Your task to perform on an android device: toggle notification dots Image 0: 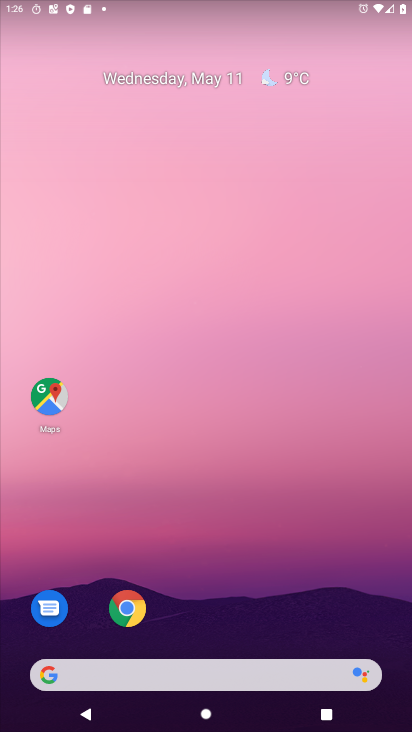
Step 0: drag from (298, 573) to (259, 70)
Your task to perform on an android device: toggle notification dots Image 1: 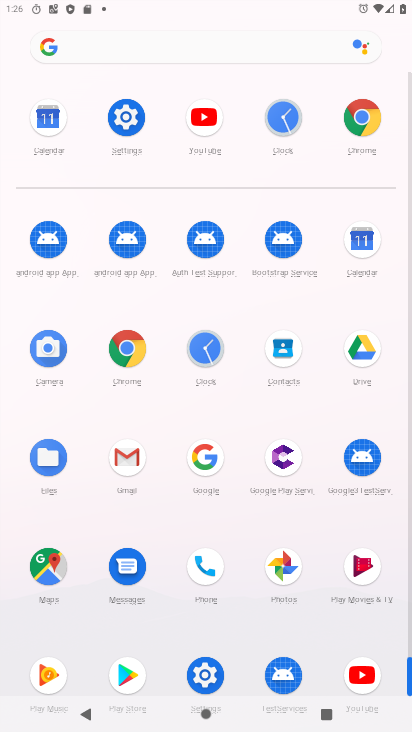
Step 1: click (138, 128)
Your task to perform on an android device: toggle notification dots Image 2: 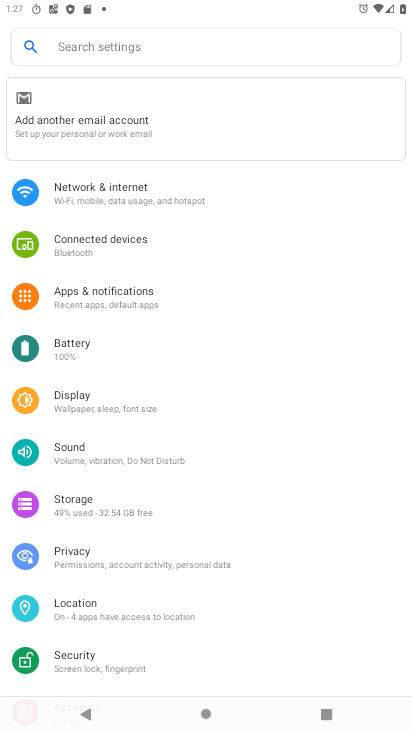
Step 2: click (119, 301)
Your task to perform on an android device: toggle notification dots Image 3: 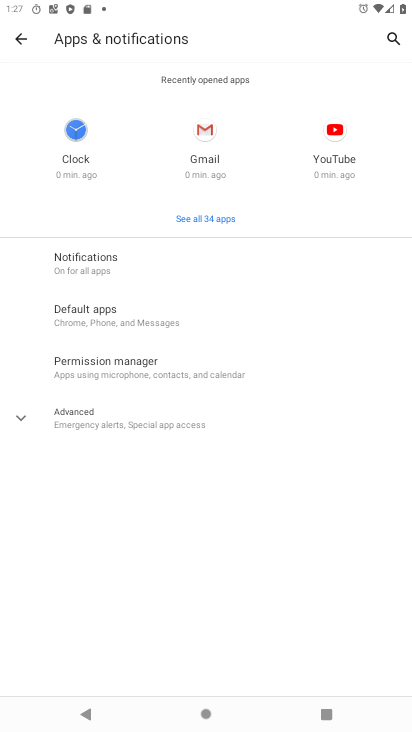
Step 3: click (146, 429)
Your task to perform on an android device: toggle notification dots Image 4: 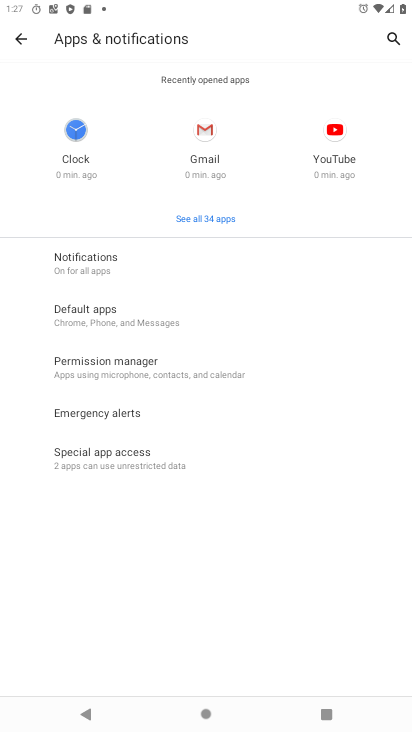
Step 4: click (121, 274)
Your task to perform on an android device: toggle notification dots Image 5: 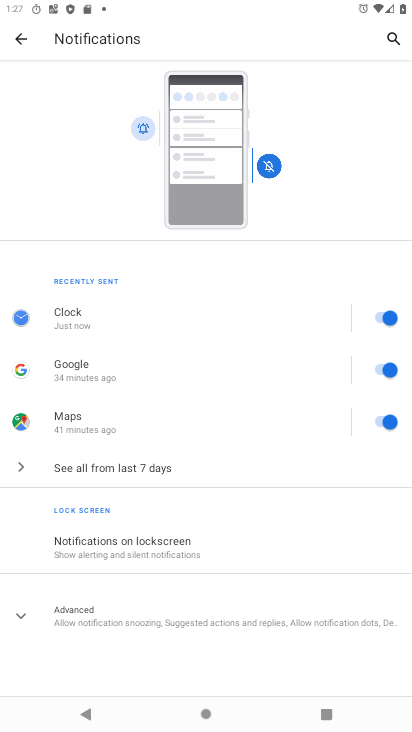
Step 5: drag from (177, 566) to (185, 450)
Your task to perform on an android device: toggle notification dots Image 6: 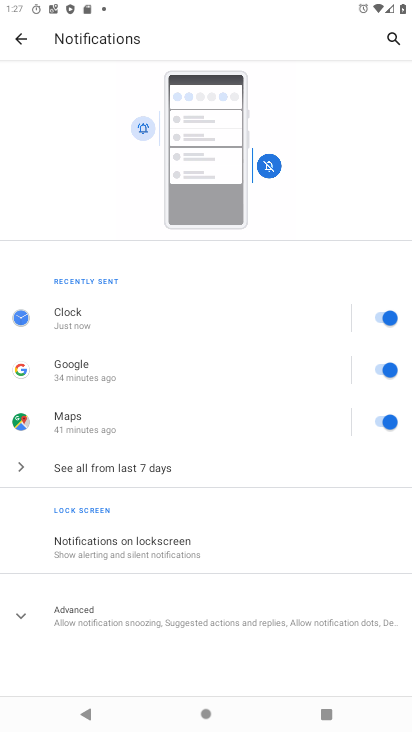
Step 6: click (163, 618)
Your task to perform on an android device: toggle notification dots Image 7: 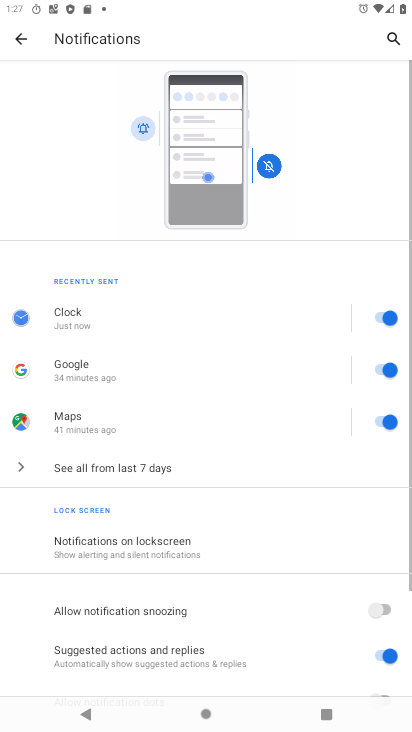
Step 7: drag from (163, 618) to (240, 191)
Your task to perform on an android device: toggle notification dots Image 8: 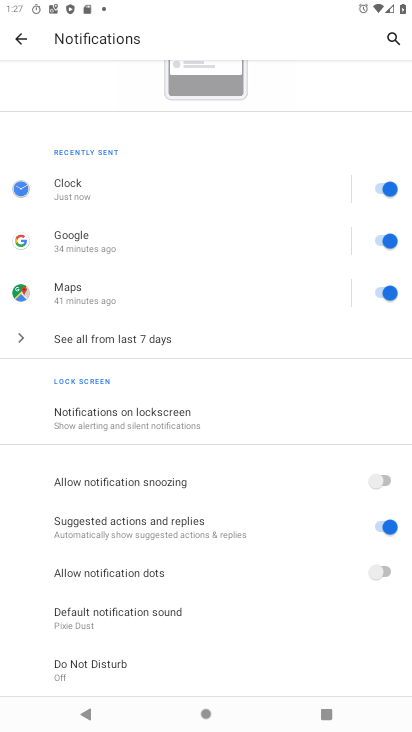
Step 8: click (378, 537)
Your task to perform on an android device: toggle notification dots Image 9: 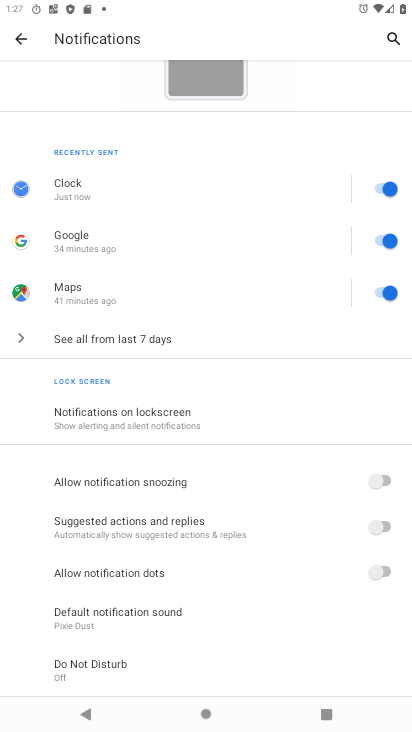
Step 9: task complete